Your task to perform on an android device: turn on the 12-hour format for clock Image 0: 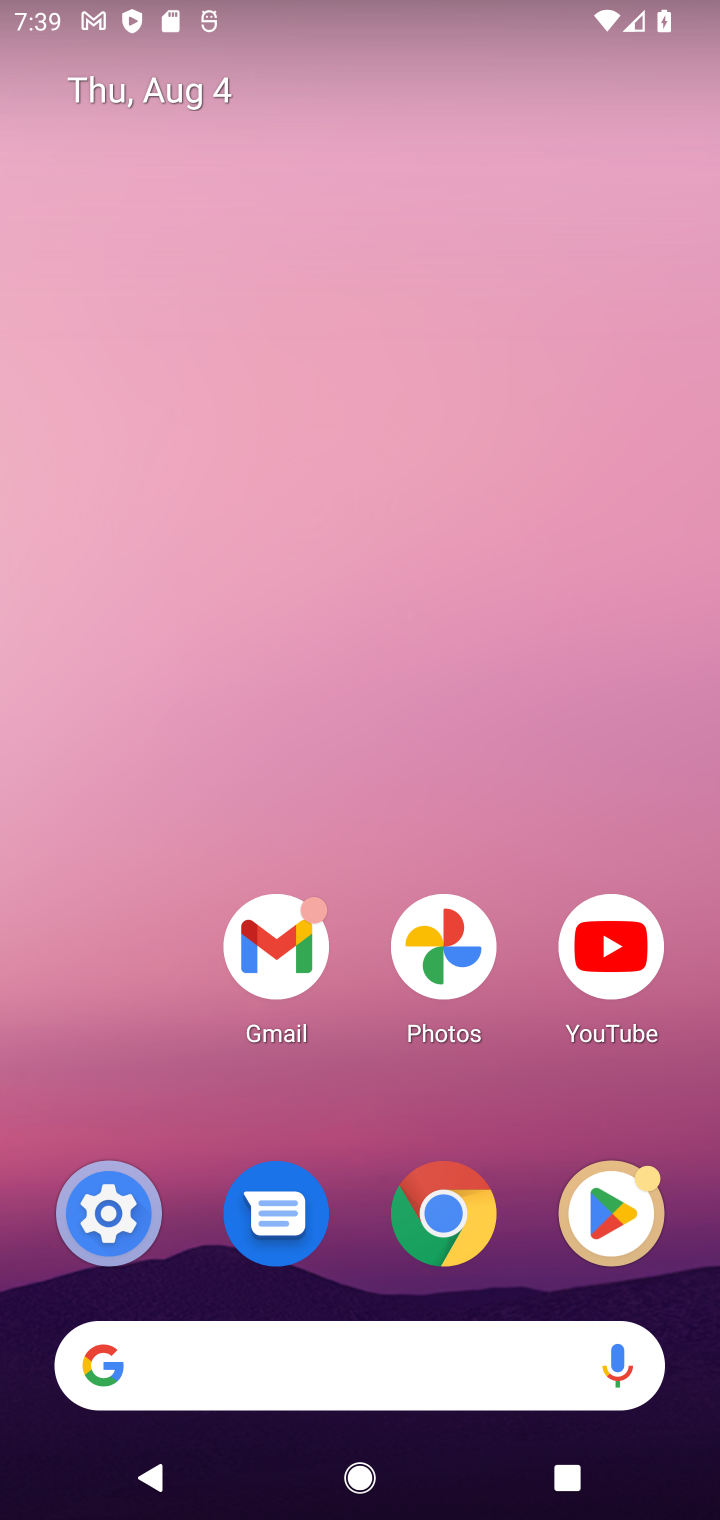
Step 0: drag from (176, 1277) to (217, 147)
Your task to perform on an android device: turn on the 12-hour format for clock Image 1: 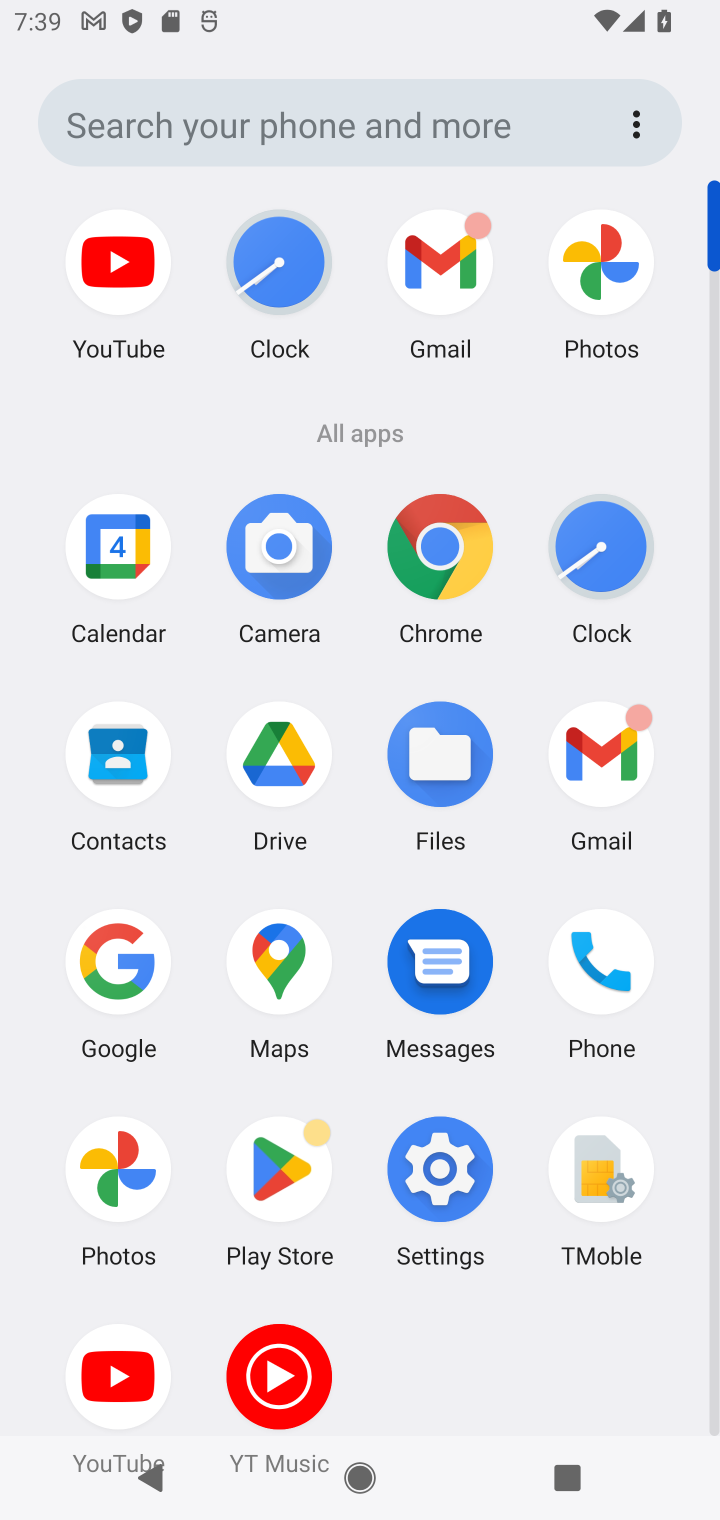
Step 1: click (566, 588)
Your task to perform on an android device: turn on the 12-hour format for clock Image 2: 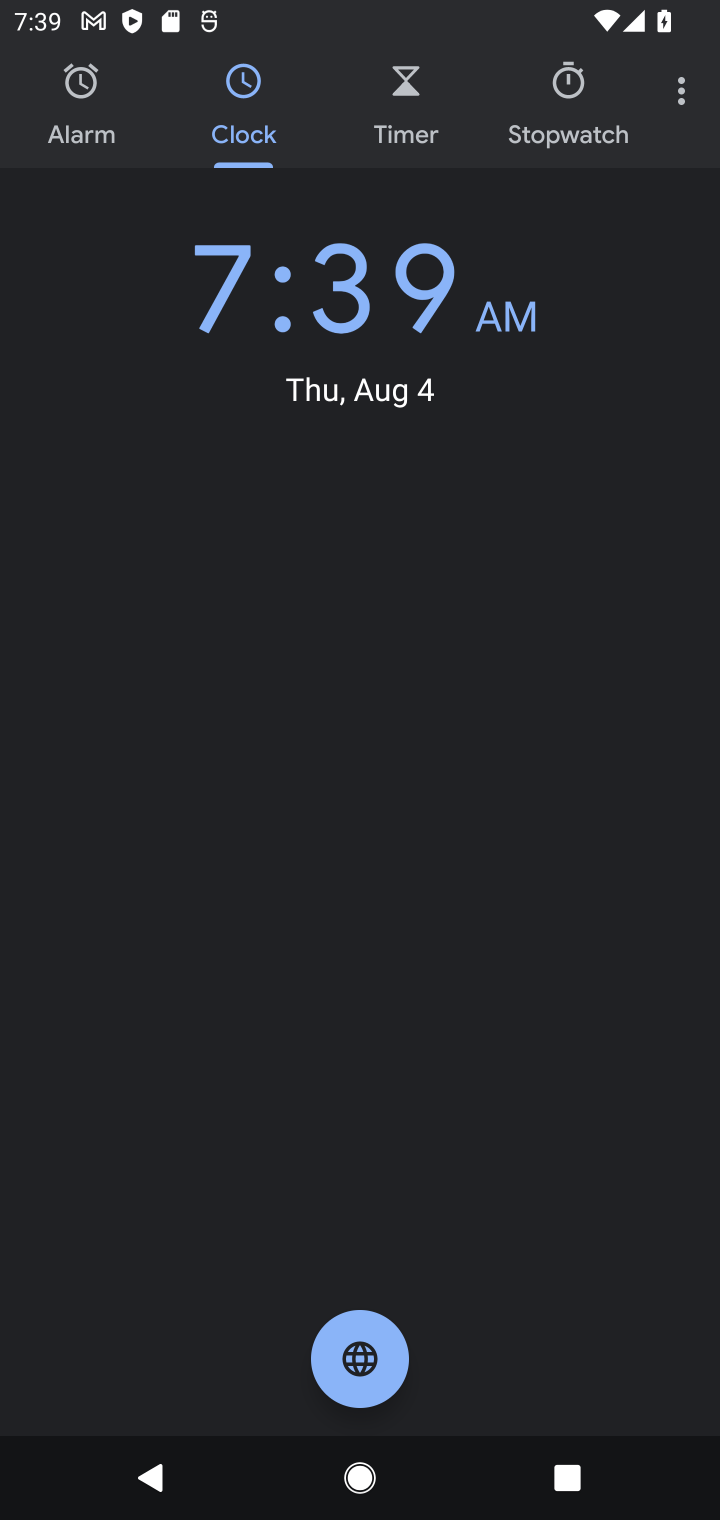
Step 2: click (685, 74)
Your task to perform on an android device: turn on the 12-hour format for clock Image 3: 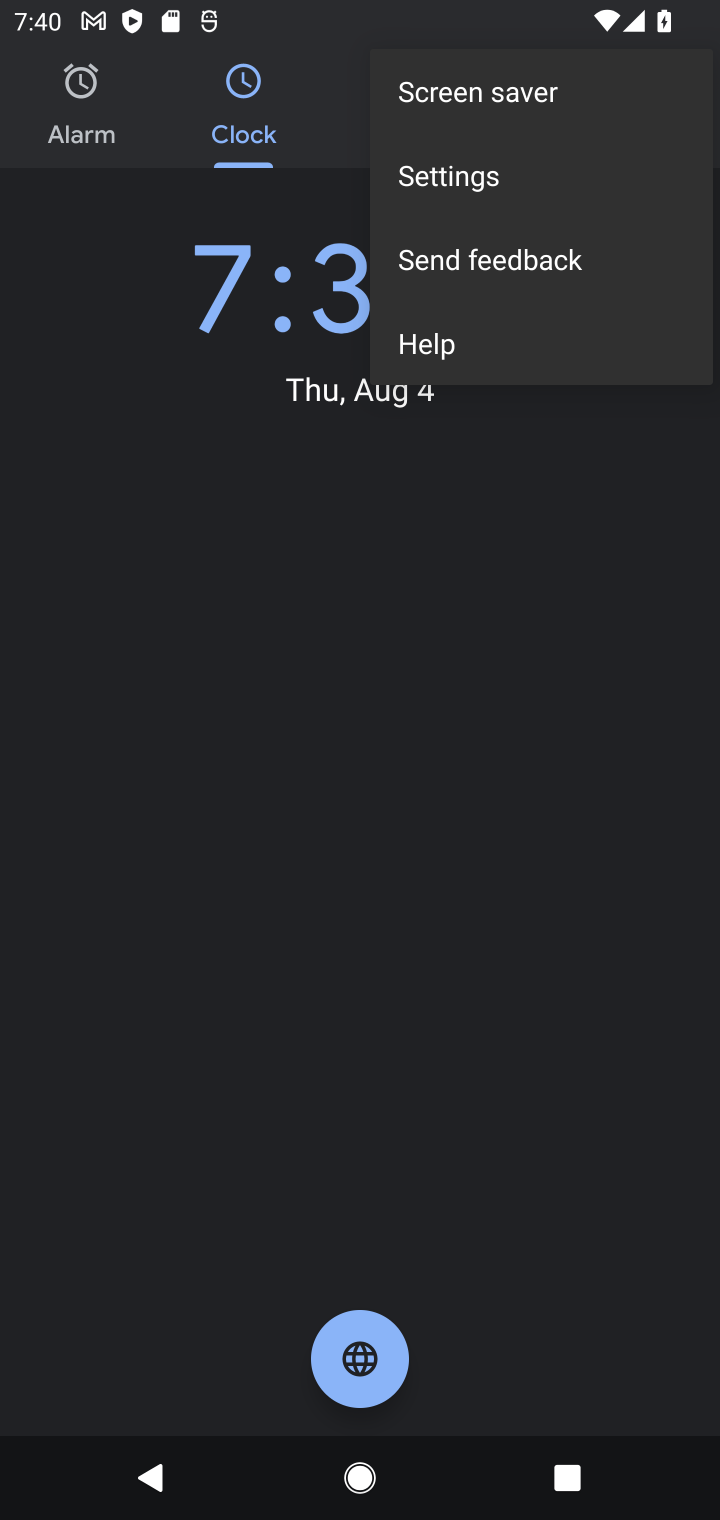
Step 3: click (581, 197)
Your task to perform on an android device: turn on the 12-hour format for clock Image 4: 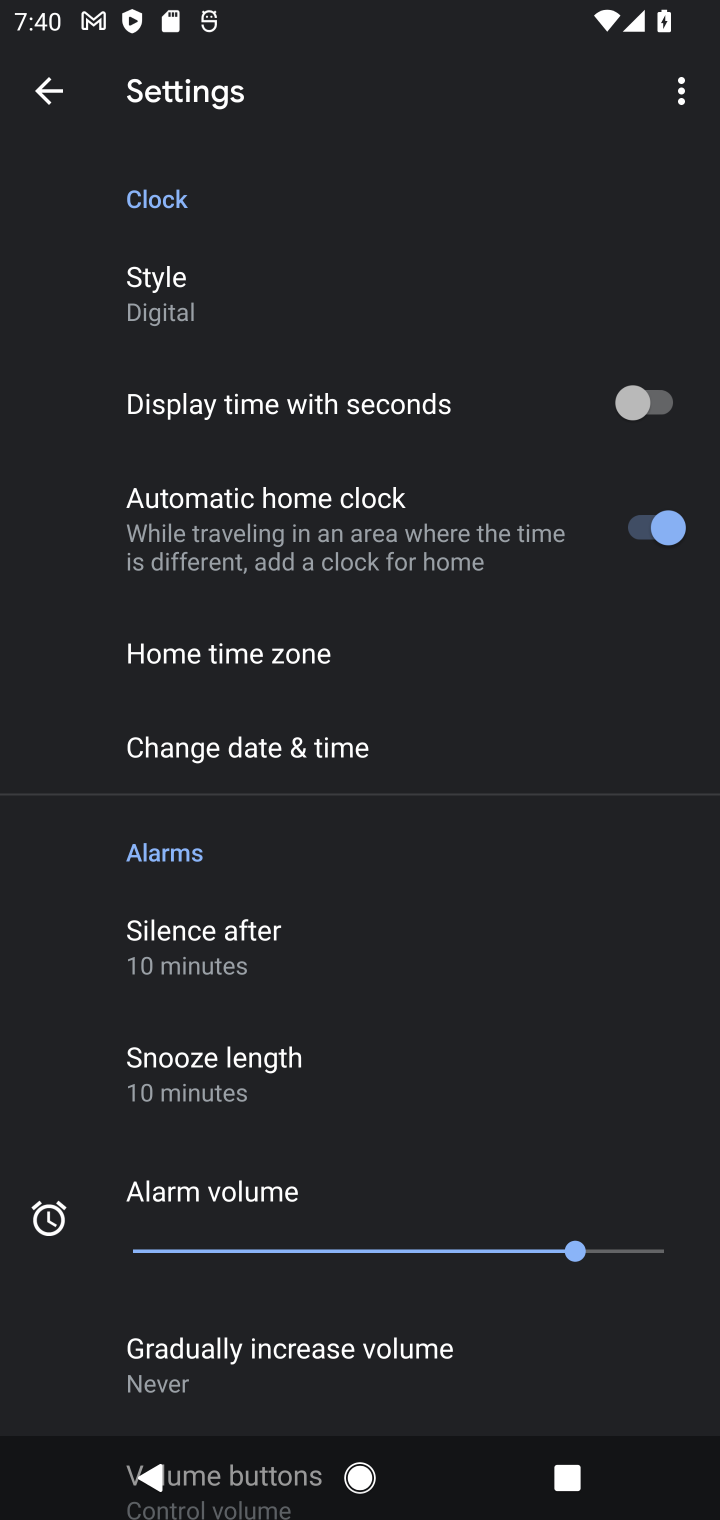
Step 4: click (377, 742)
Your task to perform on an android device: turn on the 12-hour format for clock Image 5: 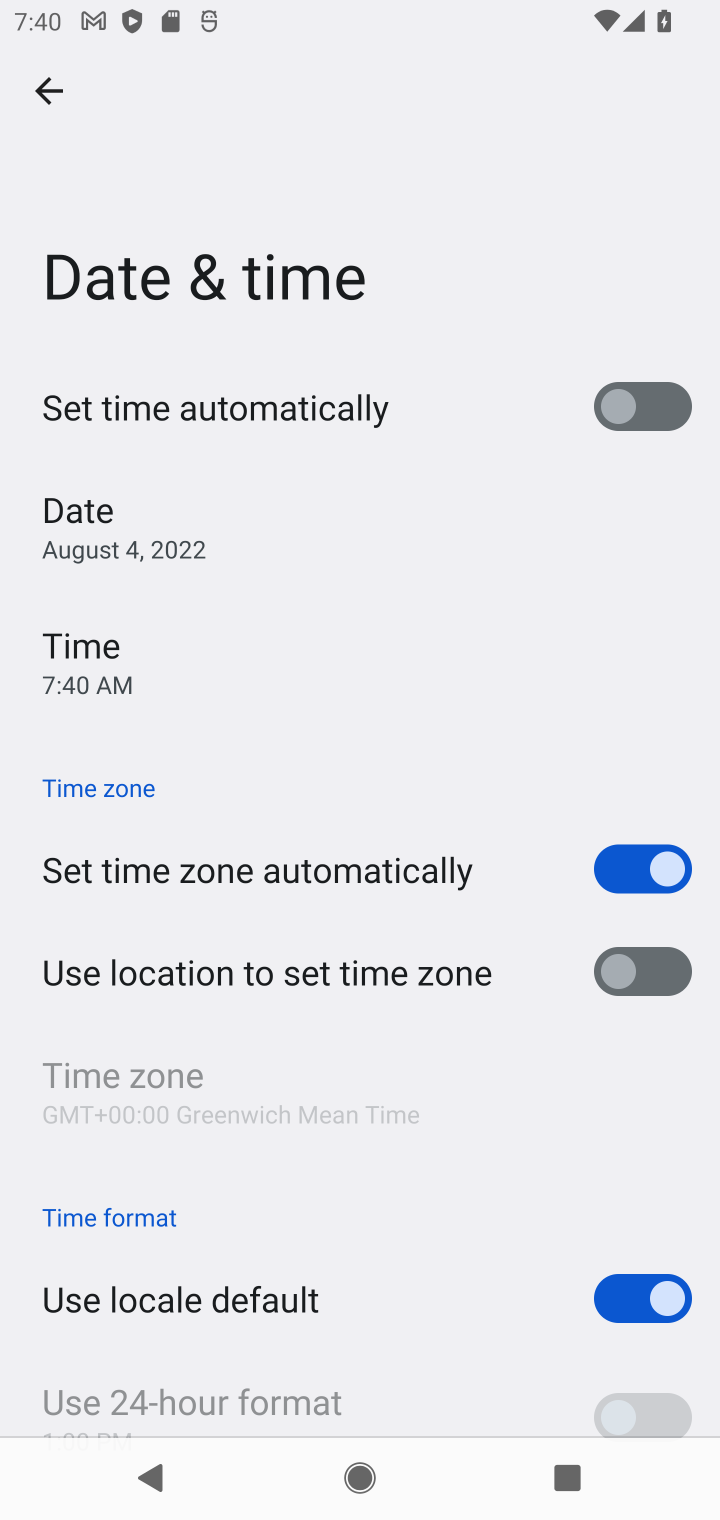
Step 5: task complete